Your task to perform on an android device: Go to Wikipedia Image 0: 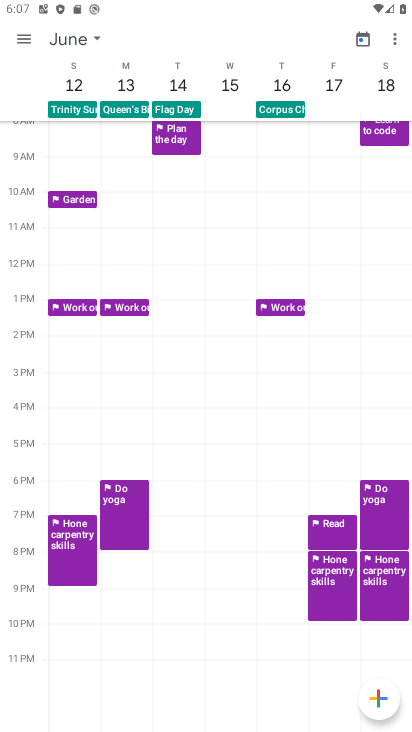
Step 0: press home button
Your task to perform on an android device: Go to Wikipedia Image 1: 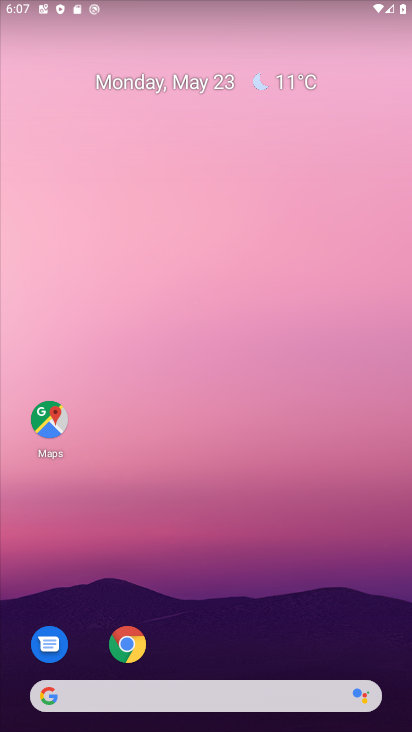
Step 1: click (127, 650)
Your task to perform on an android device: Go to Wikipedia Image 2: 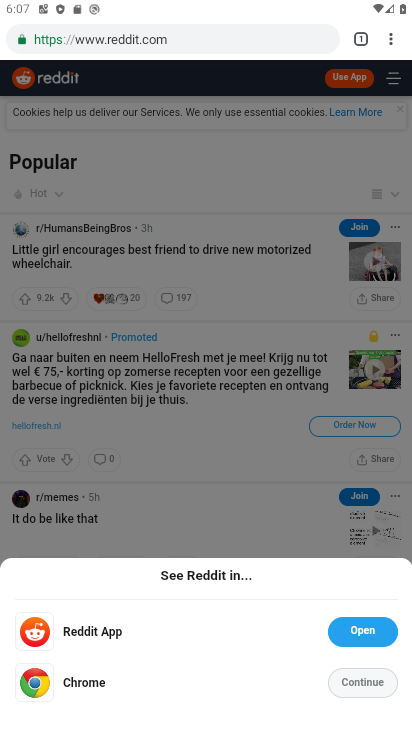
Step 2: press back button
Your task to perform on an android device: Go to Wikipedia Image 3: 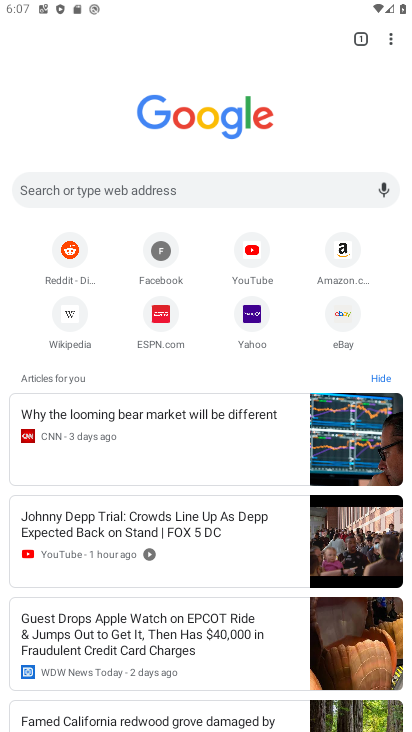
Step 3: click (68, 328)
Your task to perform on an android device: Go to Wikipedia Image 4: 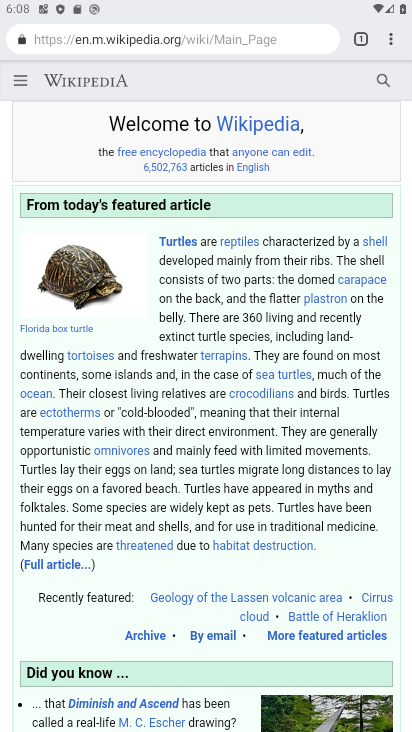
Step 4: task complete